Your task to perform on an android device: Search for shimano brake pads on Walmart Image 0: 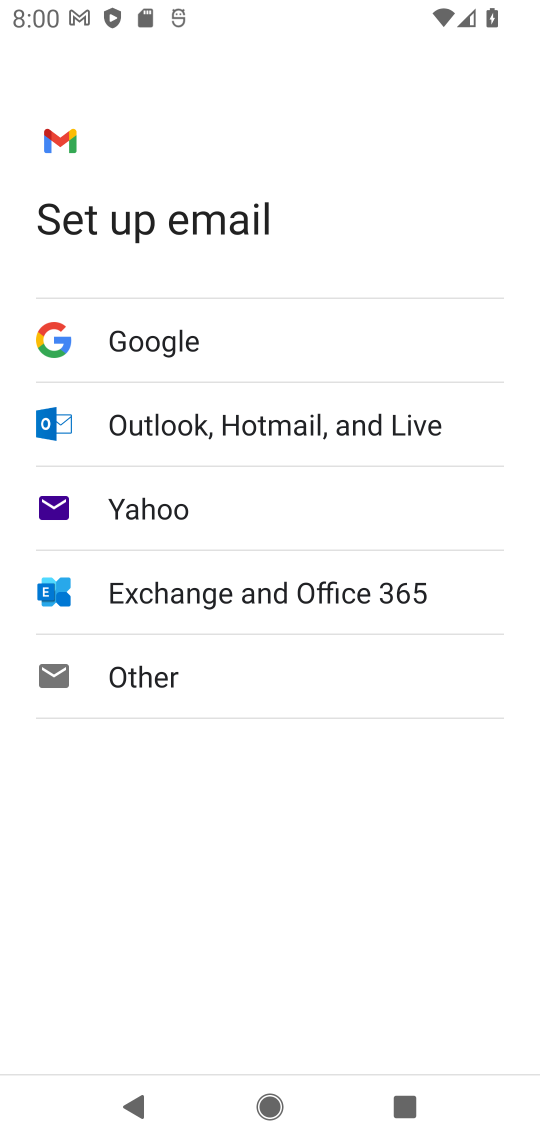
Step 0: press home button
Your task to perform on an android device: Search for shimano brake pads on Walmart Image 1: 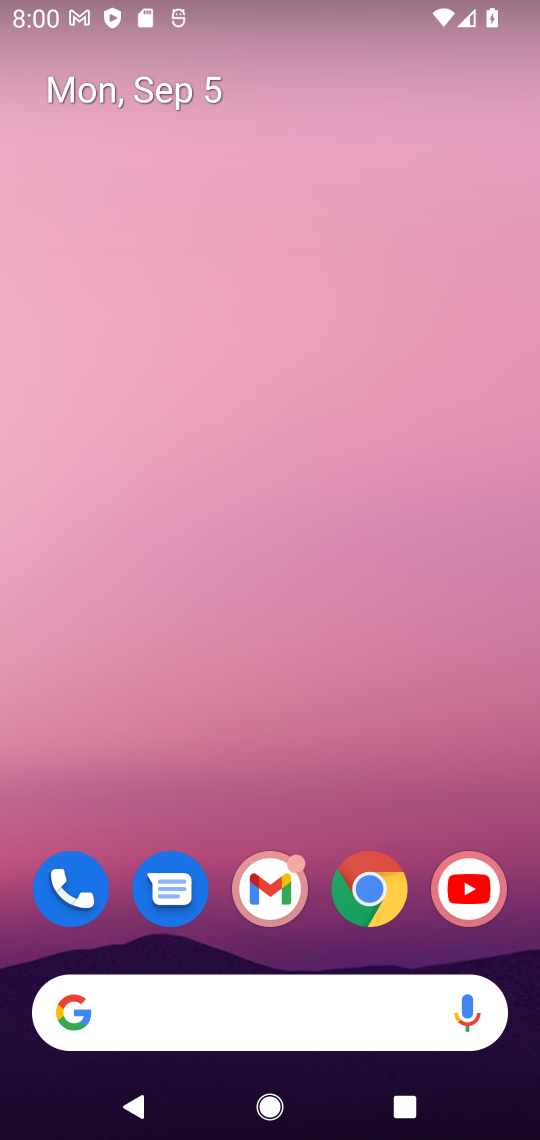
Step 1: click (243, 1000)
Your task to perform on an android device: Search for shimano brake pads on Walmart Image 2: 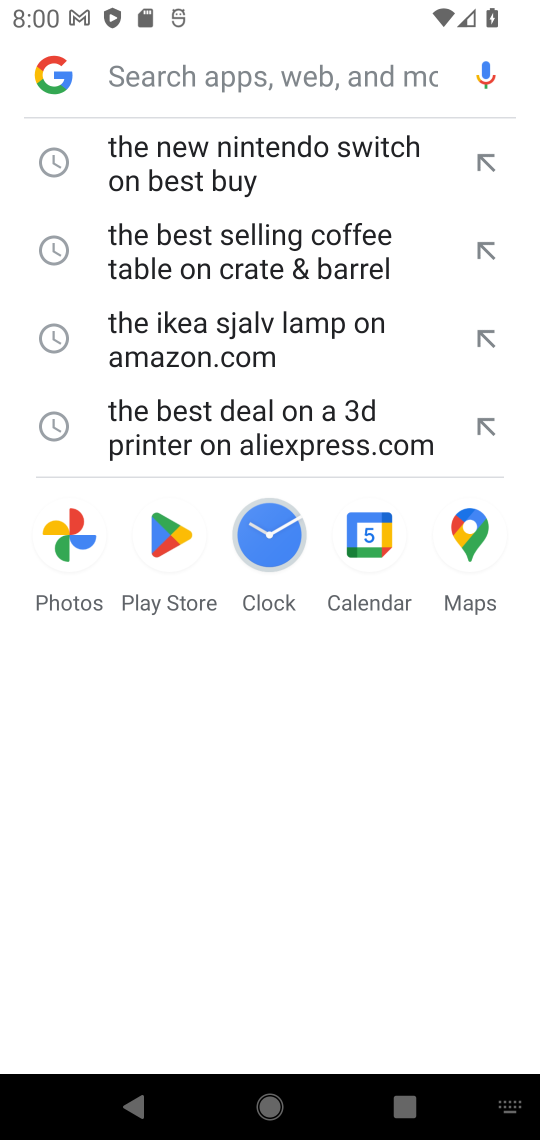
Step 2: type " shimano brake pads on Walmart"
Your task to perform on an android device: Search for shimano brake pads on Walmart Image 3: 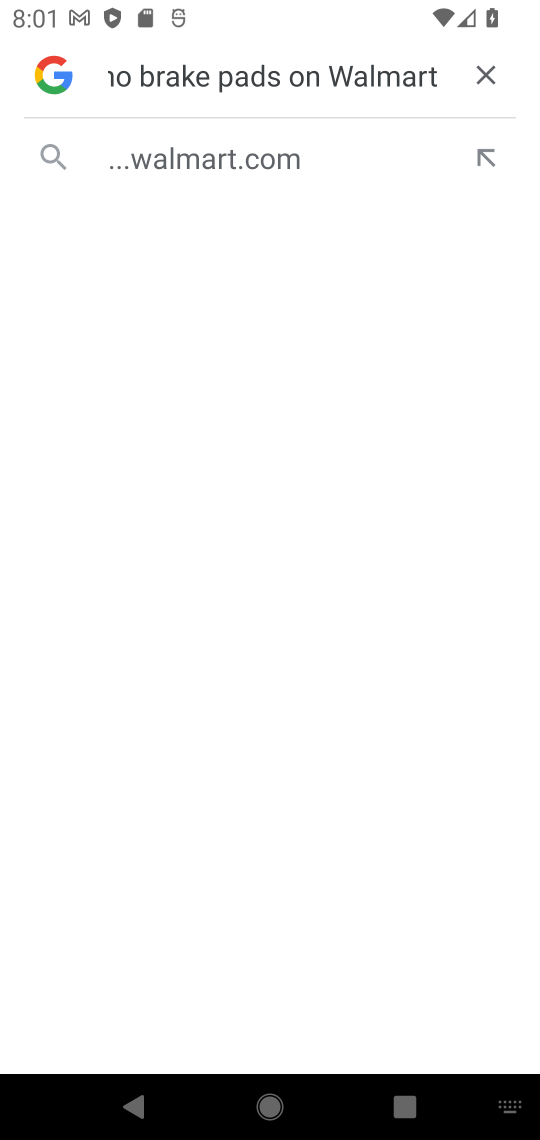
Step 3: click (215, 171)
Your task to perform on an android device: Search for shimano brake pads on Walmart Image 4: 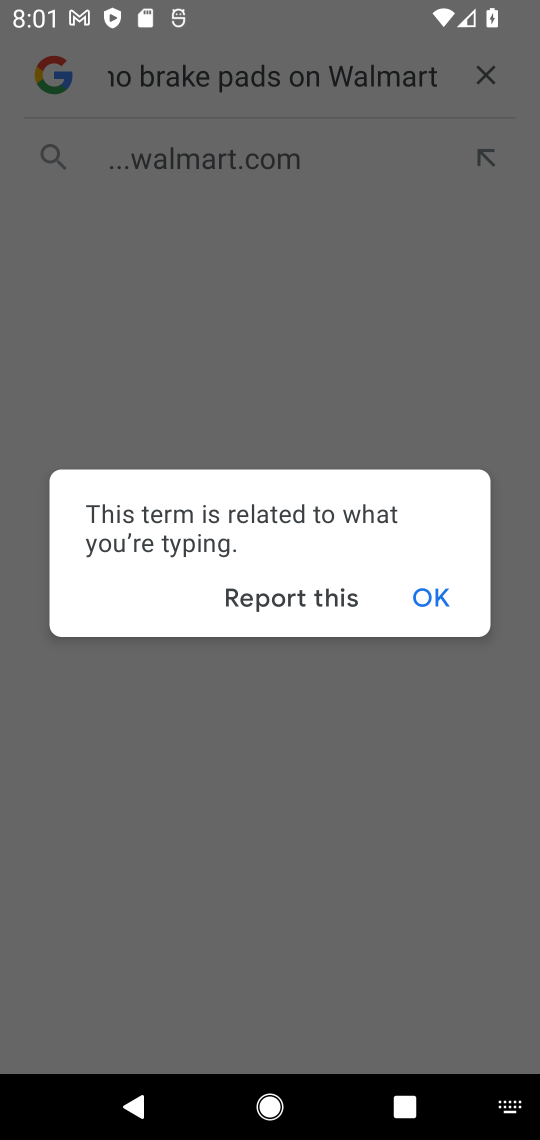
Step 4: click (457, 597)
Your task to perform on an android device: Search for shimano brake pads on Walmart Image 5: 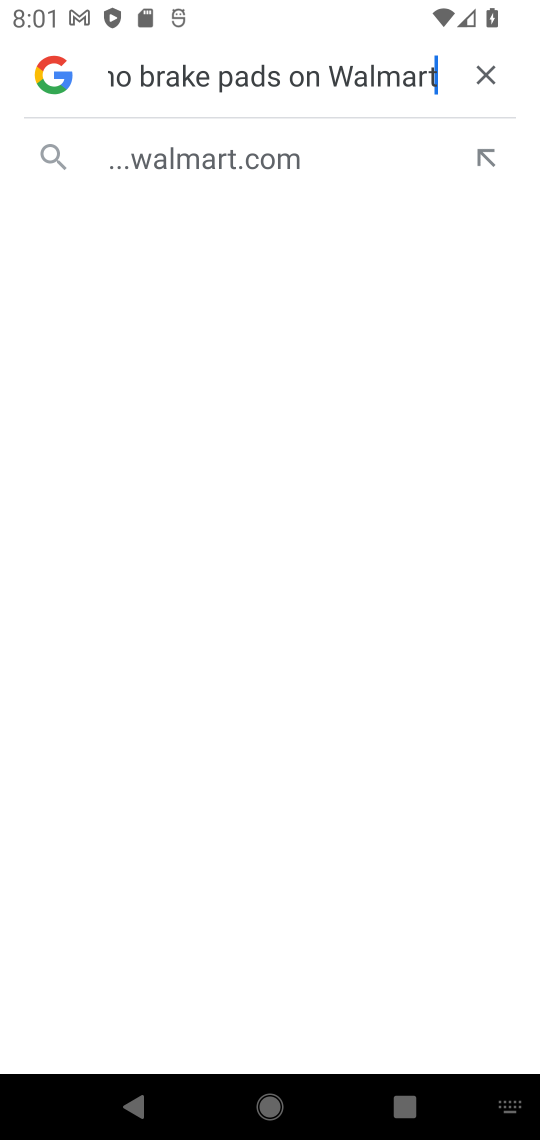
Step 5: click (245, 171)
Your task to perform on an android device: Search for shimano brake pads on Walmart Image 6: 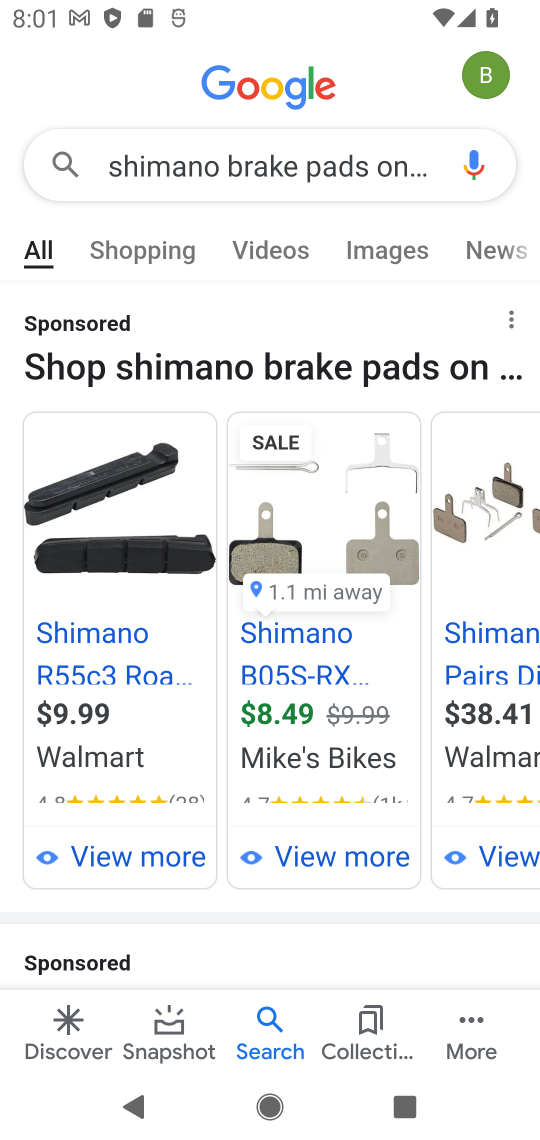
Step 6: task complete